Your task to perform on an android device: turn vacation reply on in the gmail app Image 0: 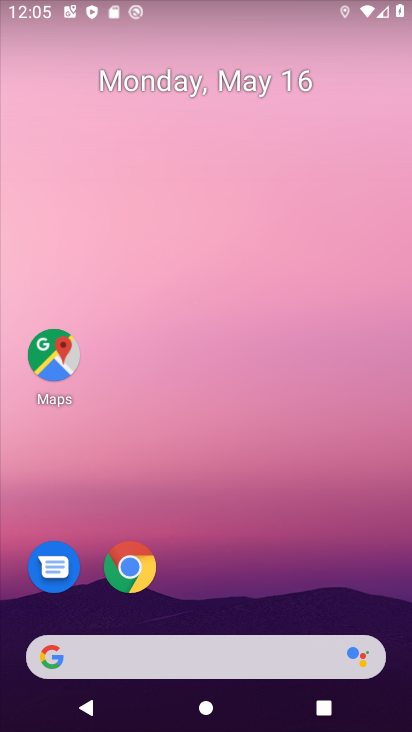
Step 0: drag from (211, 539) to (206, 1)
Your task to perform on an android device: turn vacation reply on in the gmail app Image 1: 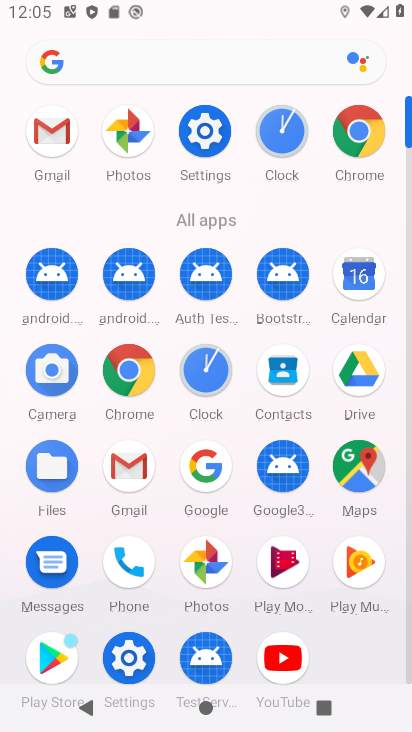
Step 1: click (37, 127)
Your task to perform on an android device: turn vacation reply on in the gmail app Image 2: 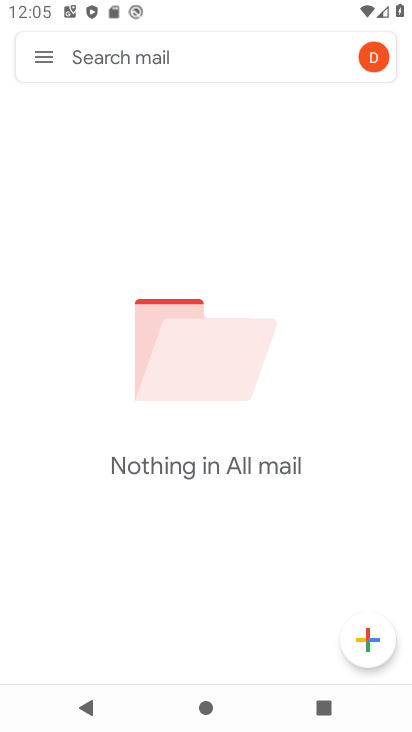
Step 2: click (44, 59)
Your task to perform on an android device: turn vacation reply on in the gmail app Image 3: 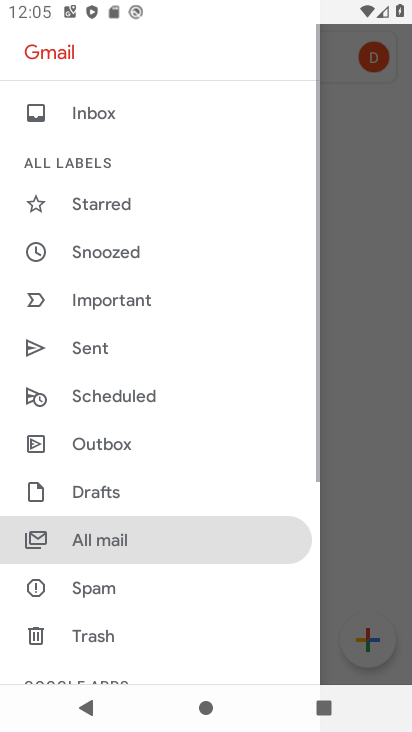
Step 3: drag from (143, 645) to (208, 77)
Your task to perform on an android device: turn vacation reply on in the gmail app Image 4: 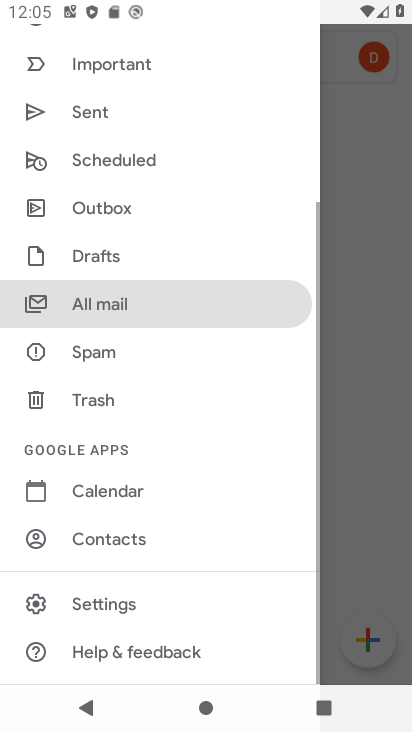
Step 4: click (119, 610)
Your task to perform on an android device: turn vacation reply on in the gmail app Image 5: 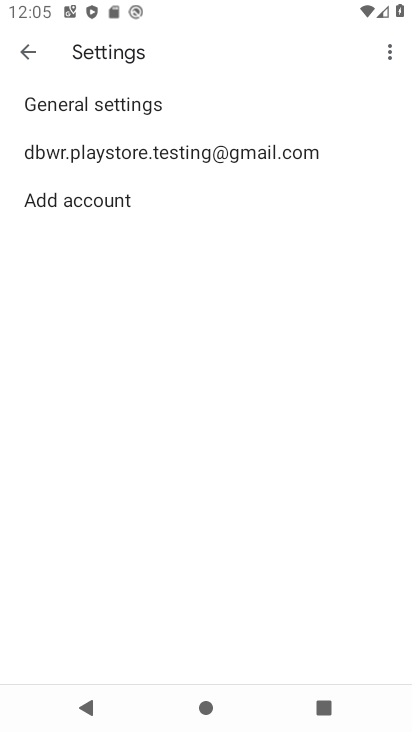
Step 5: click (160, 161)
Your task to perform on an android device: turn vacation reply on in the gmail app Image 6: 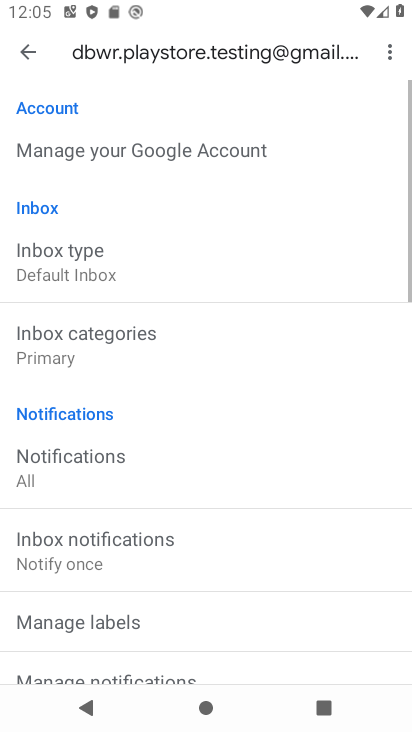
Step 6: drag from (200, 568) to (279, 122)
Your task to perform on an android device: turn vacation reply on in the gmail app Image 7: 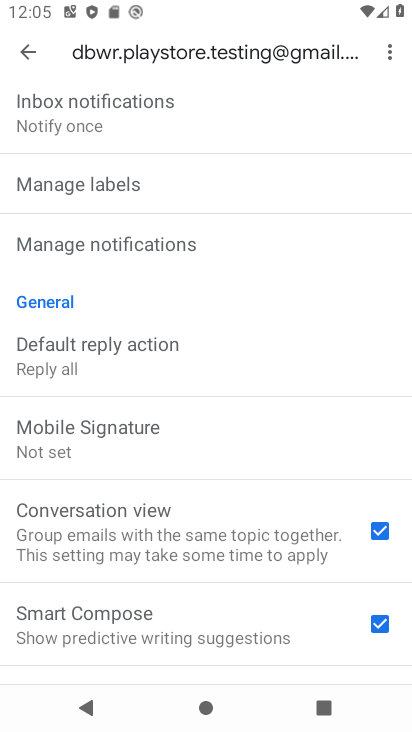
Step 7: drag from (208, 556) to (280, 130)
Your task to perform on an android device: turn vacation reply on in the gmail app Image 8: 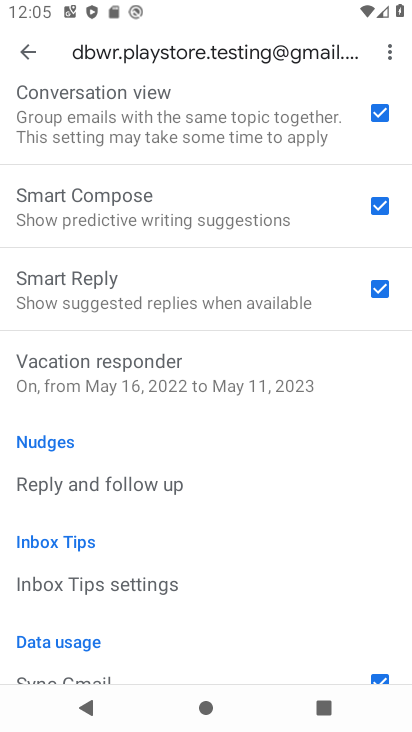
Step 8: click (211, 367)
Your task to perform on an android device: turn vacation reply on in the gmail app Image 9: 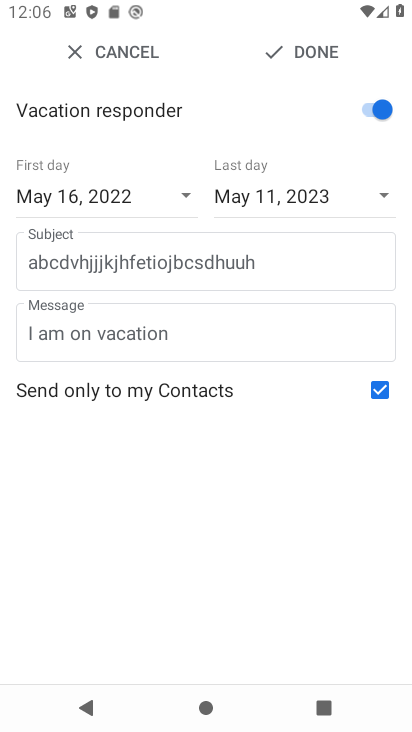
Step 9: task complete